Your task to perform on an android device: delete location history Image 0: 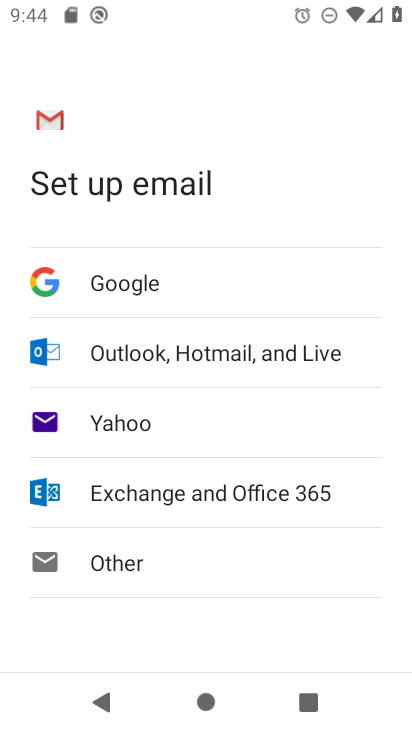
Step 0: press home button
Your task to perform on an android device: delete location history Image 1: 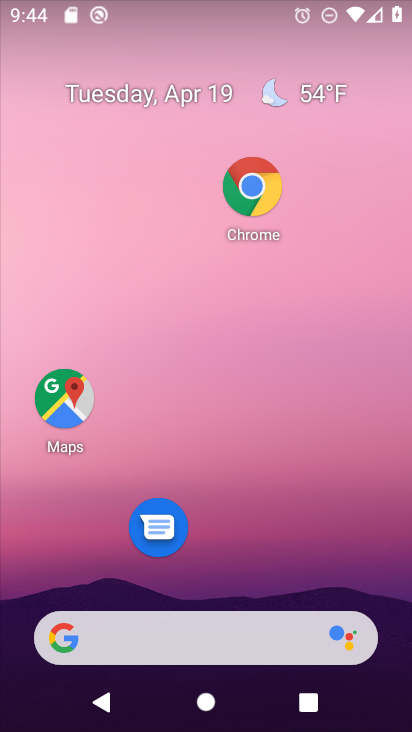
Step 1: drag from (276, 562) to (276, 282)
Your task to perform on an android device: delete location history Image 2: 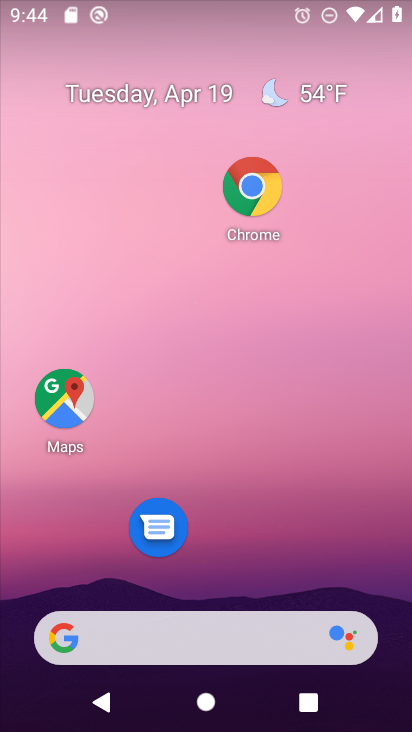
Step 2: click (297, 227)
Your task to perform on an android device: delete location history Image 3: 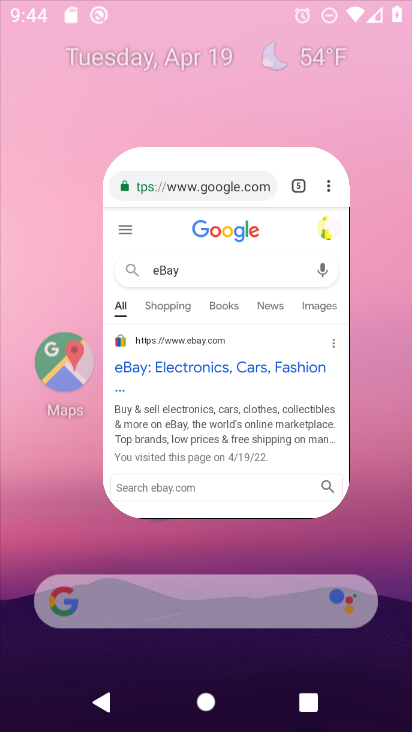
Step 3: drag from (254, 337) to (273, 221)
Your task to perform on an android device: delete location history Image 4: 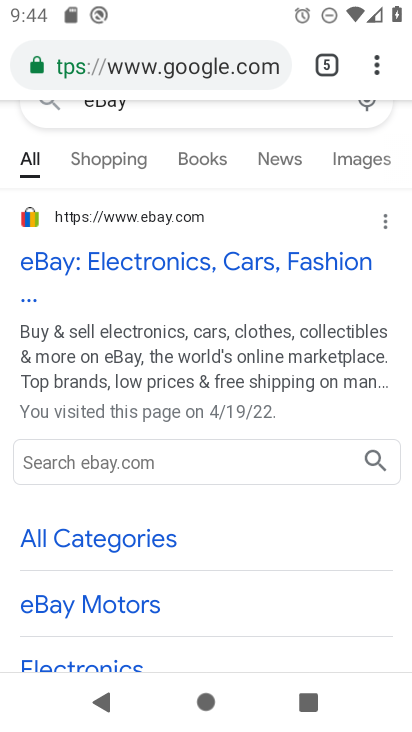
Step 4: press home button
Your task to perform on an android device: delete location history Image 5: 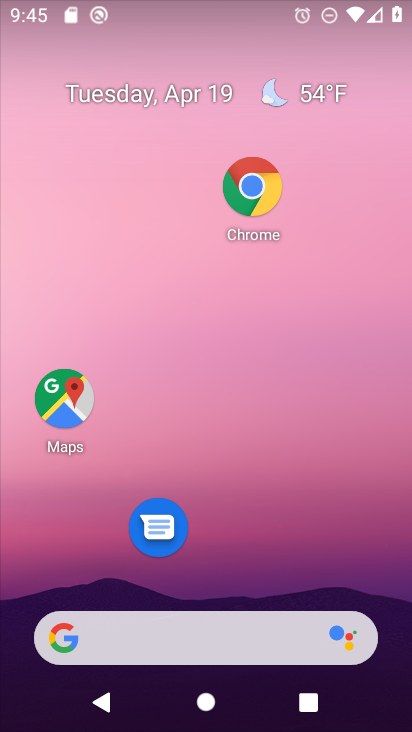
Step 5: click (74, 388)
Your task to perform on an android device: delete location history Image 6: 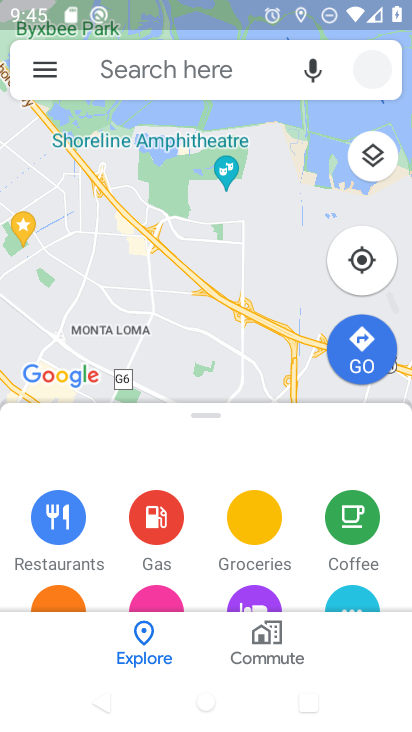
Step 6: click (42, 75)
Your task to perform on an android device: delete location history Image 7: 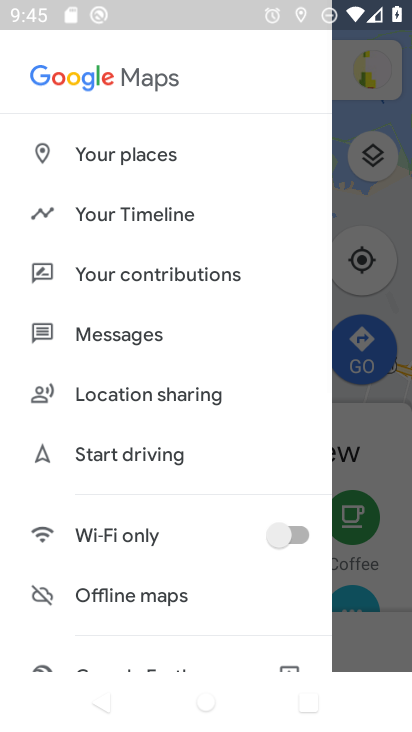
Step 7: click (149, 203)
Your task to perform on an android device: delete location history Image 8: 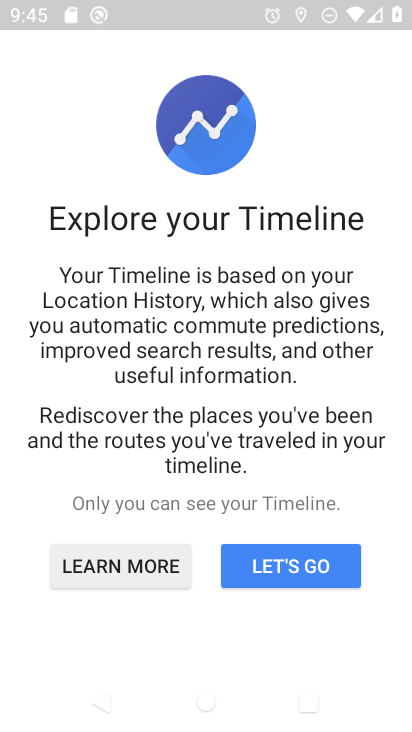
Step 8: drag from (231, 590) to (240, 223)
Your task to perform on an android device: delete location history Image 9: 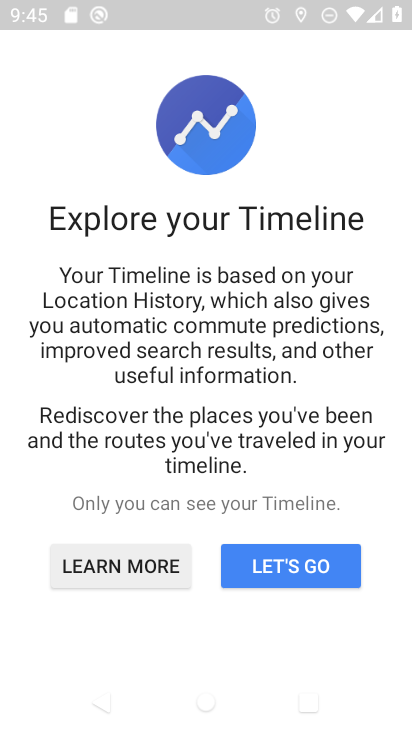
Step 9: click (321, 573)
Your task to perform on an android device: delete location history Image 10: 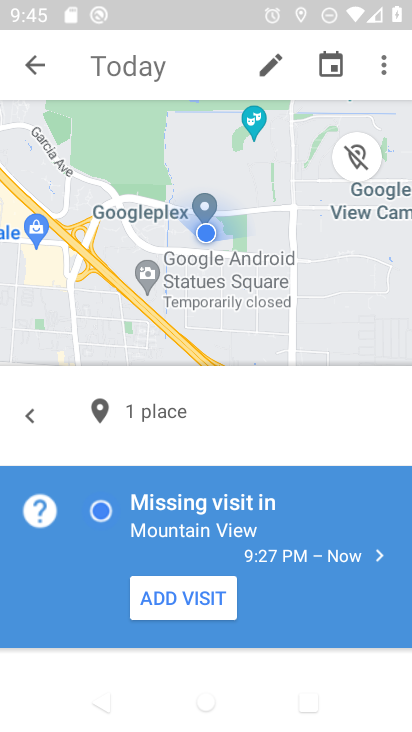
Step 10: click (383, 45)
Your task to perform on an android device: delete location history Image 11: 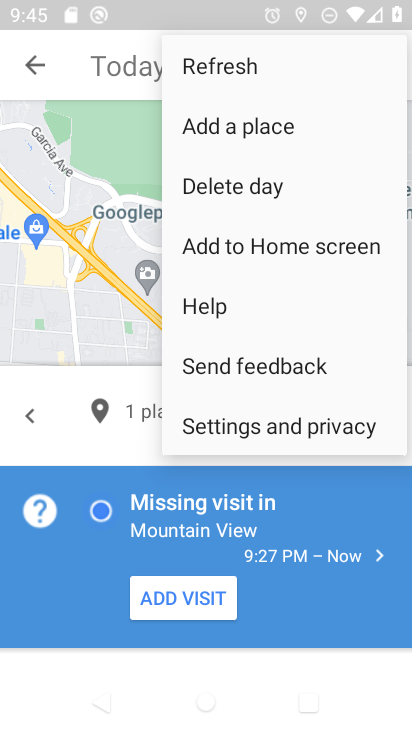
Step 11: click (237, 415)
Your task to perform on an android device: delete location history Image 12: 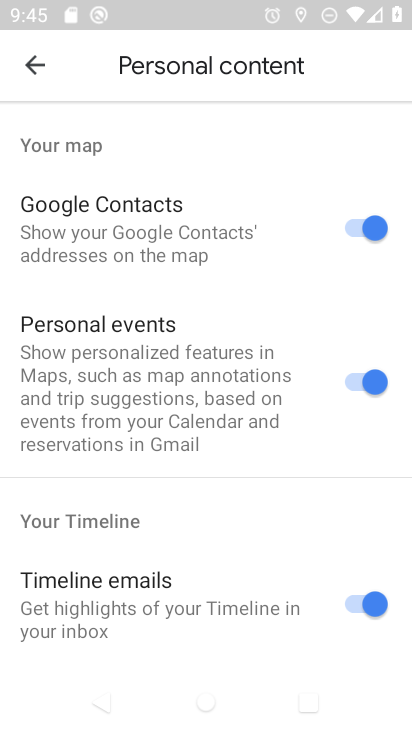
Step 12: drag from (180, 559) to (222, 113)
Your task to perform on an android device: delete location history Image 13: 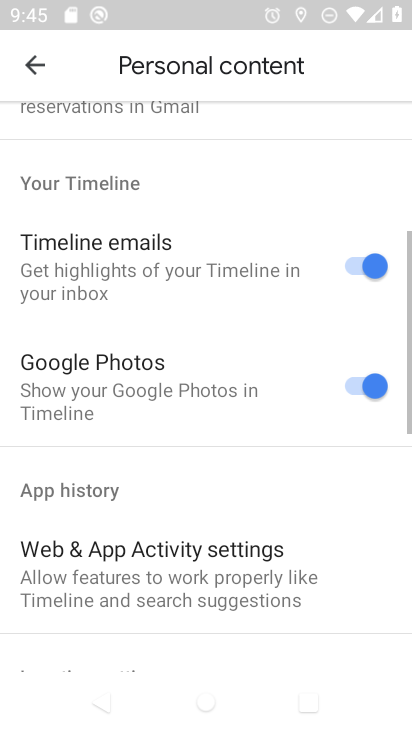
Step 13: drag from (137, 629) to (251, 152)
Your task to perform on an android device: delete location history Image 14: 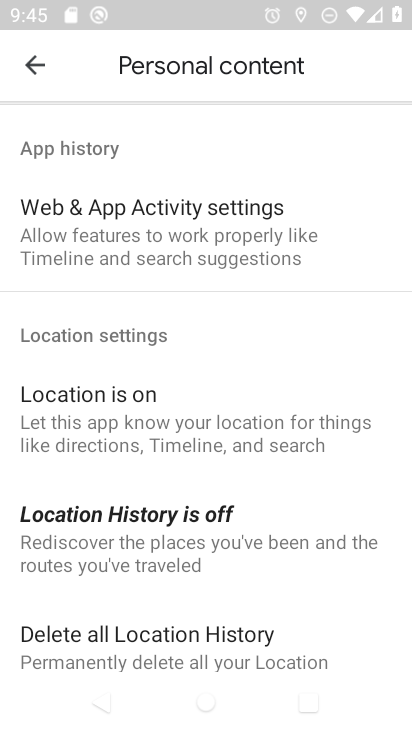
Step 14: drag from (133, 590) to (165, 409)
Your task to perform on an android device: delete location history Image 15: 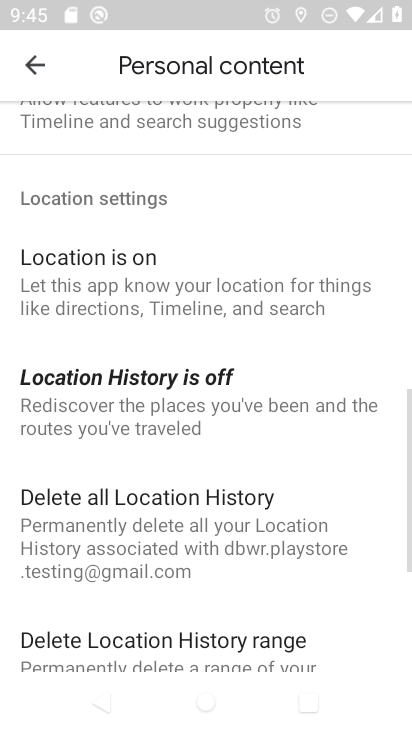
Step 15: click (130, 504)
Your task to perform on an android device: delete location history Image 16: 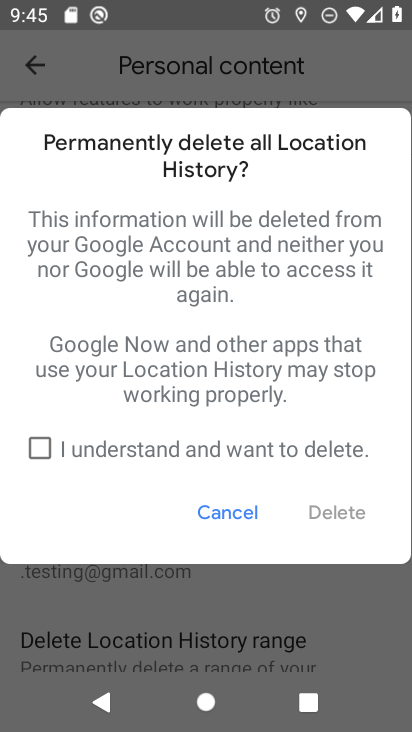
Step 16: click (108, 449)
Your task to perform on an android device: delete location history Image 17: 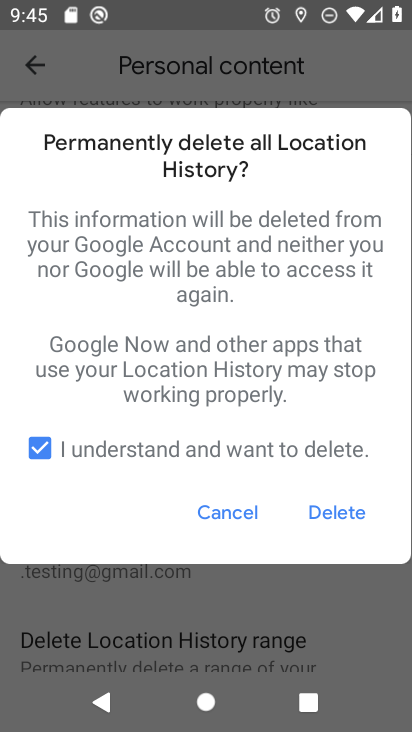
Step 17: click (314, 518)
Your task to perform on an android device: delete location history Image 18: 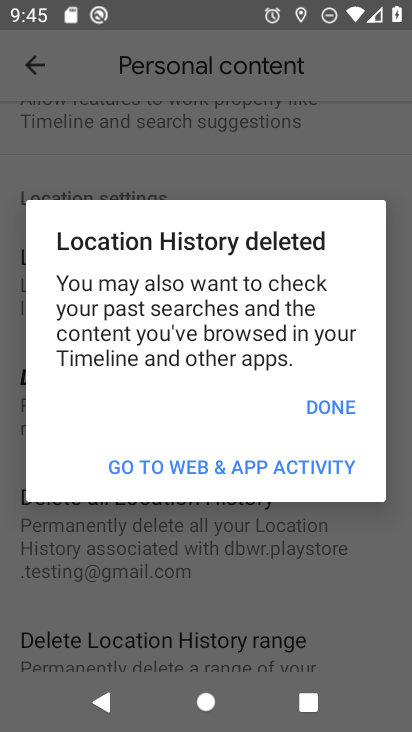
Step 18: click (322, 408)
Your task to perform on an android device: delete location history Image 19: 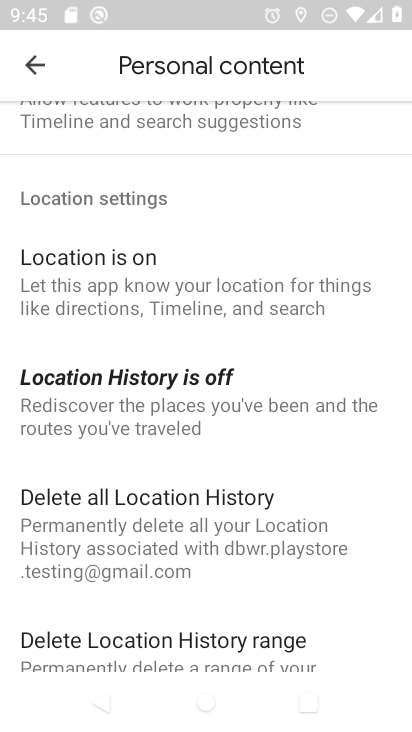
Step 19: task complete